Your task to perform on an android device: Open eBay Image 0: 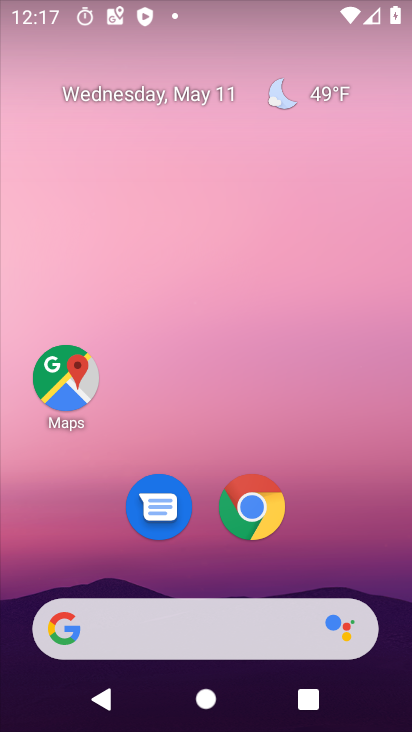
Step 0: drag from (237, 564) to (257, 114)
Your task to perform on an android device: Open eBay Image 1: 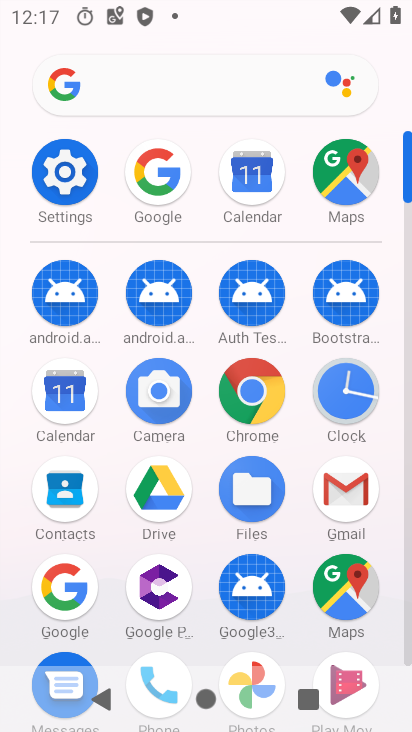
Step 1: click (167, 169)
Your task to perform on an android device: Open eBay Image 2: 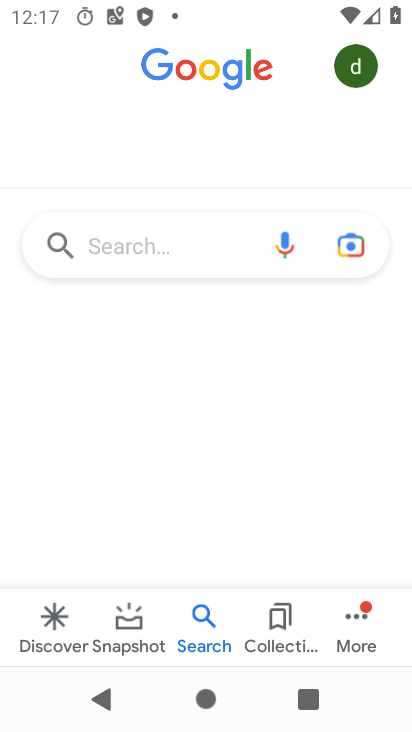
Step 2: click (170, 242)
Your task to perform on an android device: Open eBay Image 3: 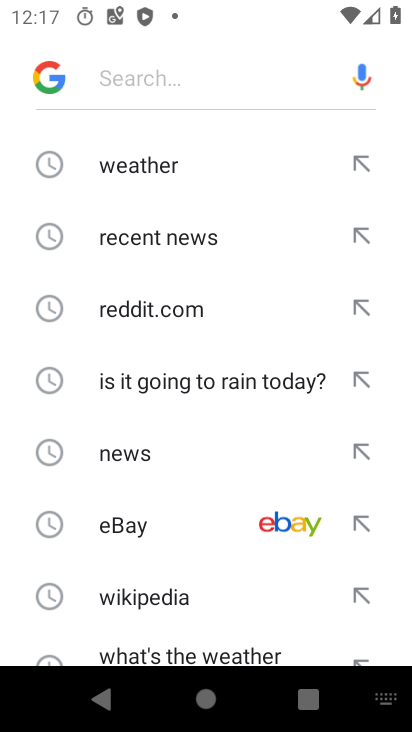
Step 3: click (145, 525)
Your task to perform on an android device: Open eBay Image 4: 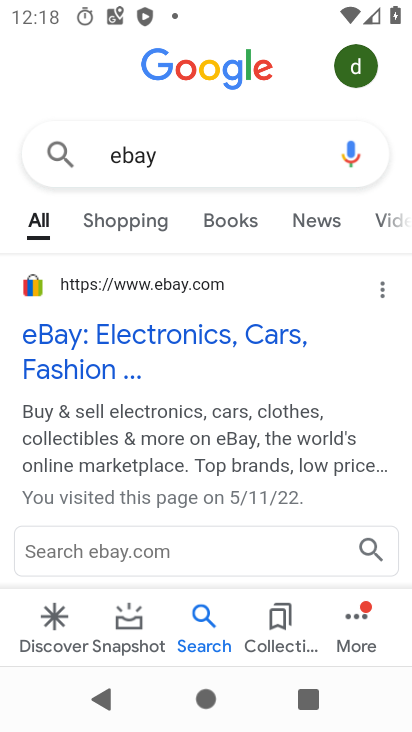
Step 4: task complete